Your task to perform on an android device: Open network settings Image 0: 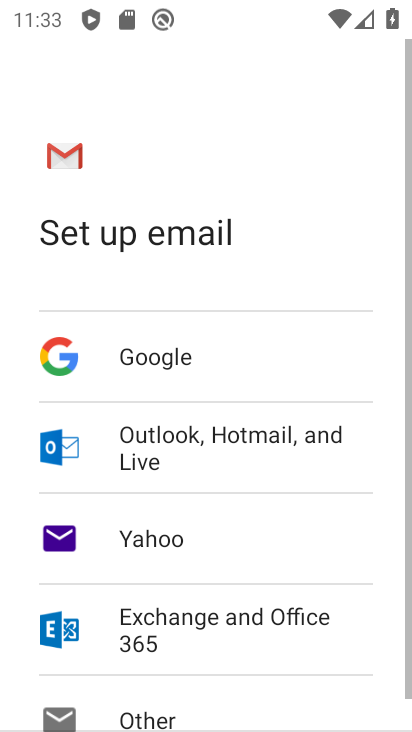
Step 0: press home button
Your task to perform on an android device: Open network settings Image 1: 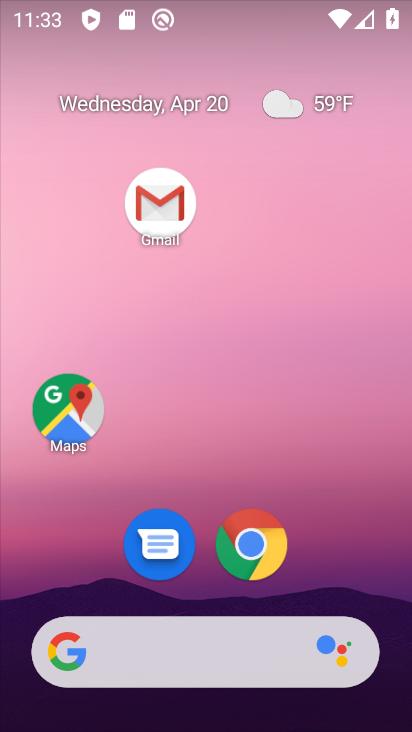
Step 1: drag from (280, 605) to (340, 49)
Your task to perform on an android device: Open network settings Image 2: 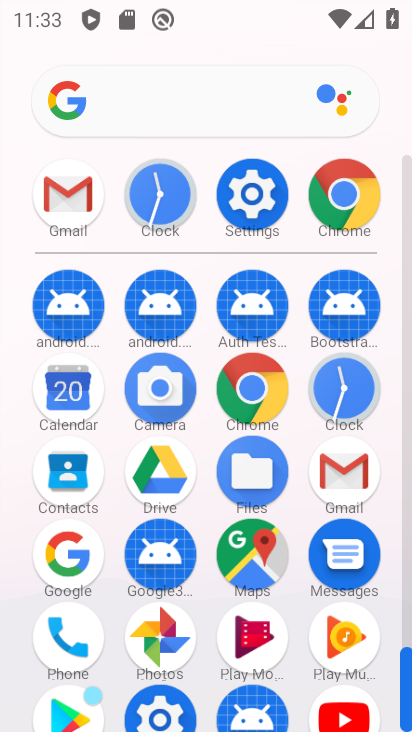
Step 2: click (268, 206)
Your task to perform on an android device: Open network settings Image 3: 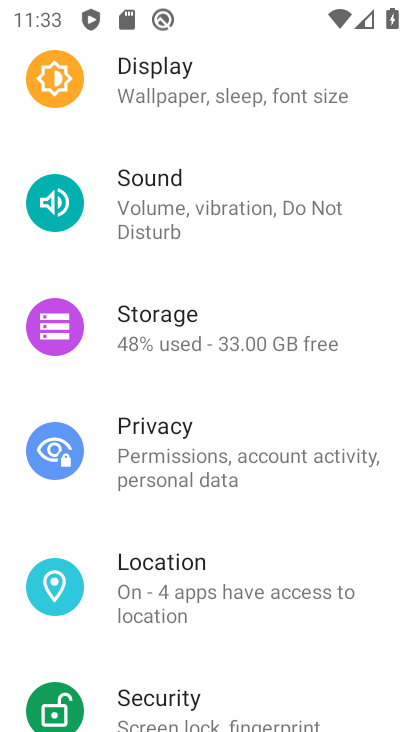
Step 3: drag from (292, 400) to (238, 731)
Your task to perform on an android device: Open network settings Image 4: 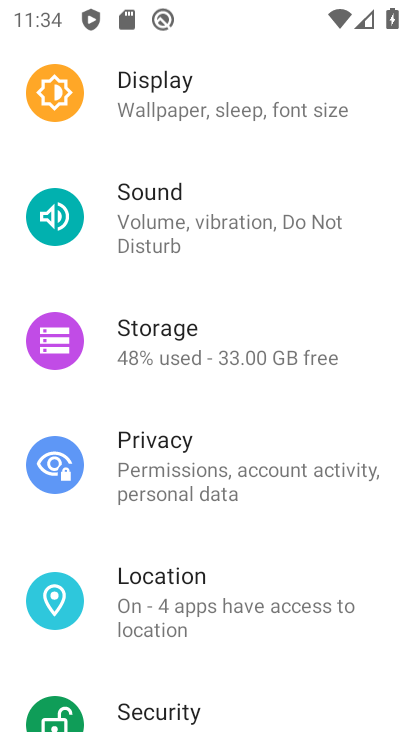
Step 4: drag from (334, 164) to (303, 715)
Your task to perform on an android device: Open network settings Image 5: 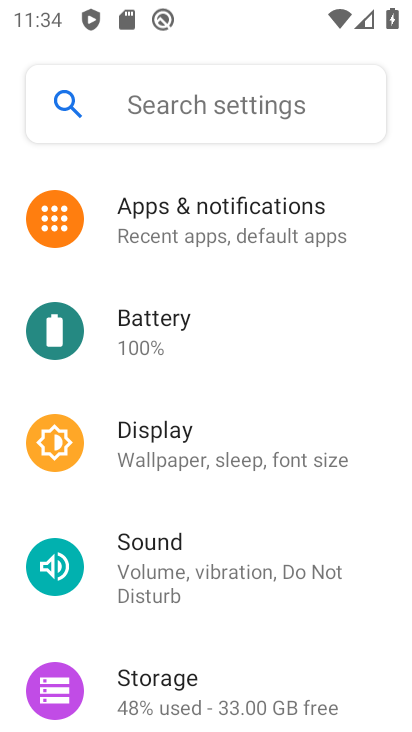
Step 5: drag from (296, 164) to (248, 728)
Your task to perform on an android device: Open network settings Image 6: 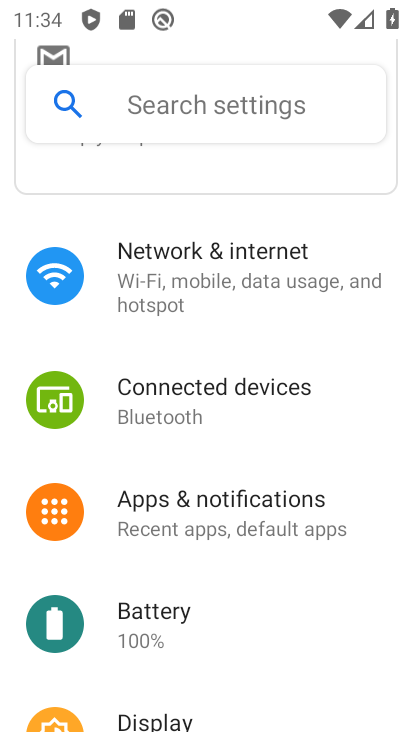
Step 6: click (178, 254)
Your task to perform on an android device: Open network settings Image 7: 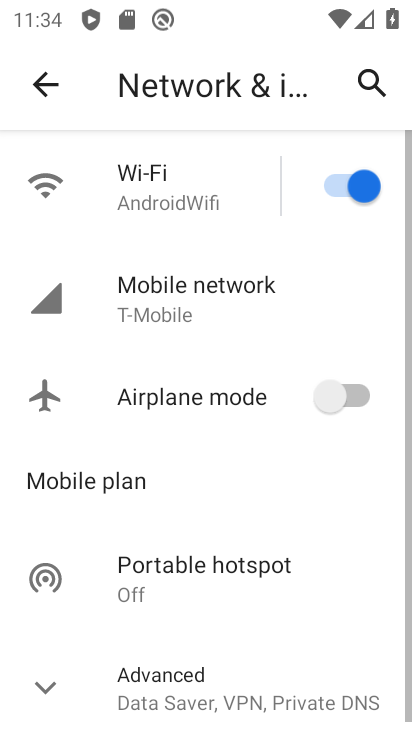
Step 7: task complete